Your task to perform on an android device: Open the calendar app, open the side menu, and click the "Day" option Image 0: 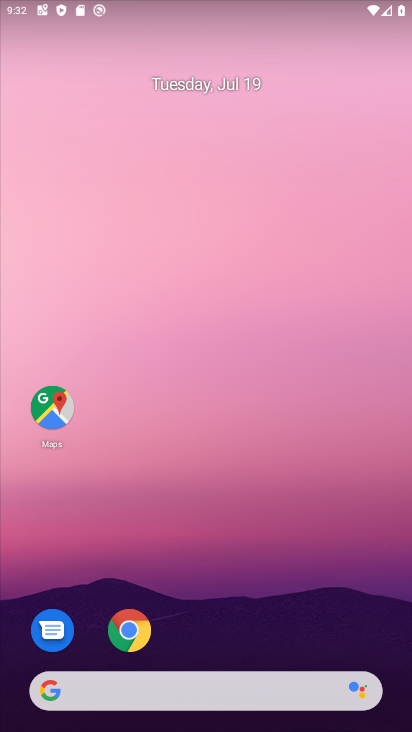
Step 0: drag from (225, 688) to (1, 31)
Your task to perform on an android device: Open the calendar app, open the side menu, and click the "Day" option Image 1: 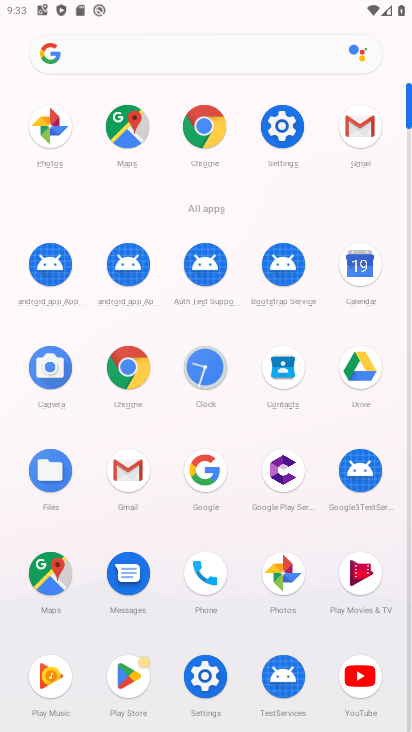
Step 1: click (352, 270)
Your task to perform on an android device: Open the calendar app, open the side menu, and click the "Day" option Image 2: 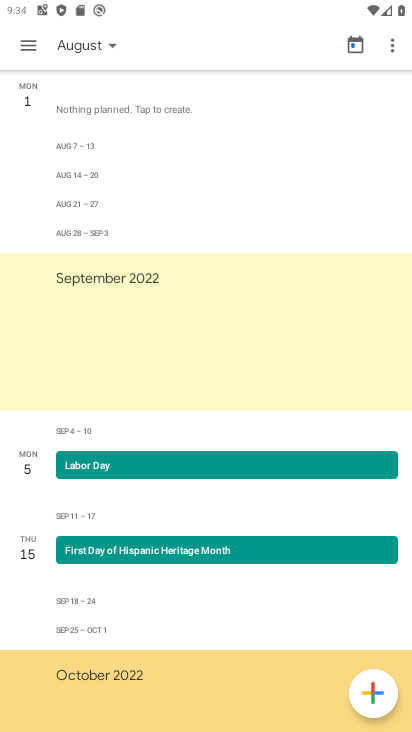
Step 2: click (24, 50)
Your task to perform on an android device: Open the calendar app, open the side menu, and click the "Day" option Image 3: 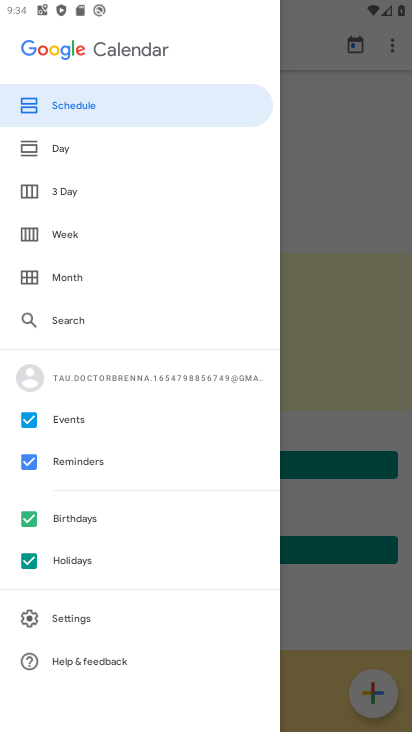
Step 3: click (71, 152)
Your task to perform on an android device: Open the calendar app, open the side menu, and click the "Day" option Image 4: 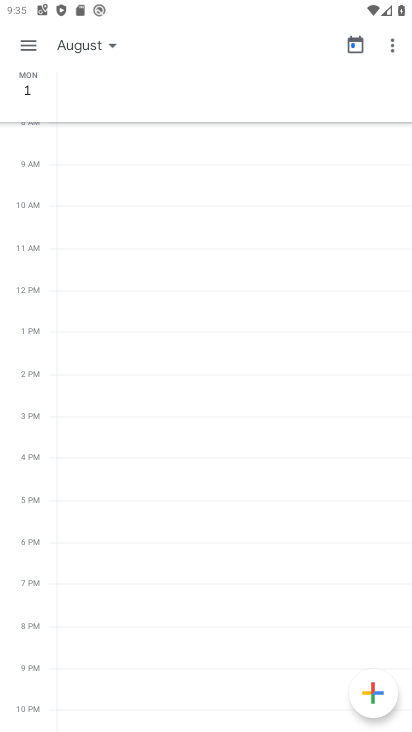
Step 4: task complete